Your task to perform on an android device: Show me the alarms in the clock app Image 0: 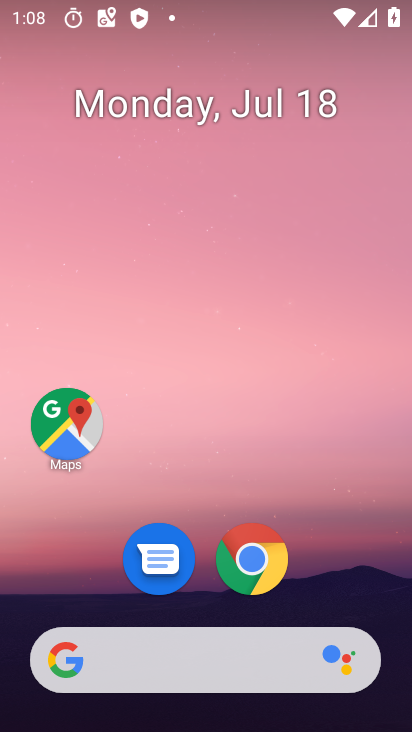
Step 0: drag from (83, 470) to (199, 14)
Your task to perform on an android device: Show me the alarms in the clock app Image 1: 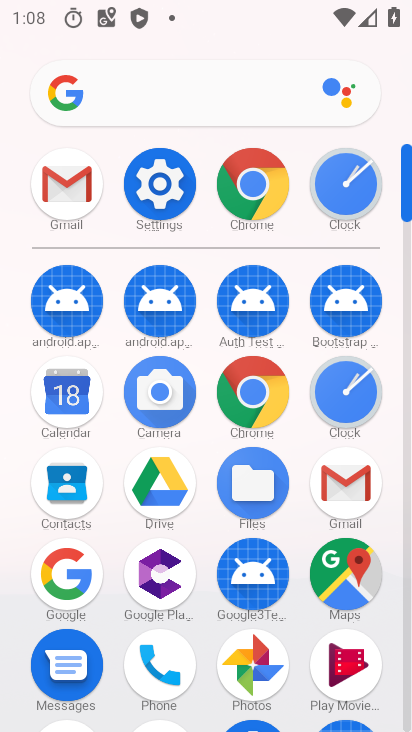
Step 1: click (356, 391)
Your task to perform on an android device: Show me the alarms in the clock app Image 2: 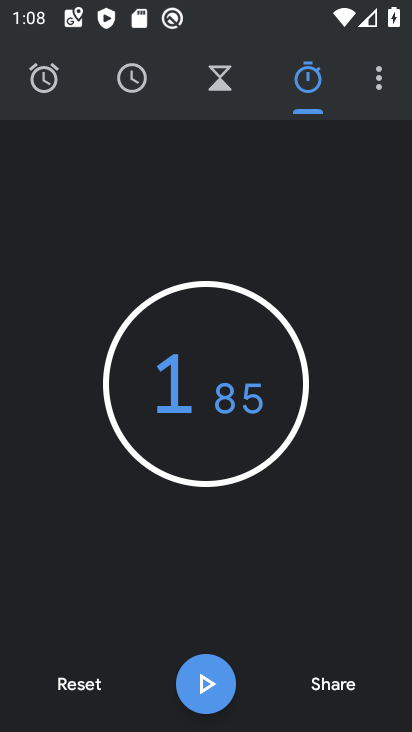
Step 2: click (47, 78)
Your task to perform on an android device: Show me the alarms in the clock app Image 3: 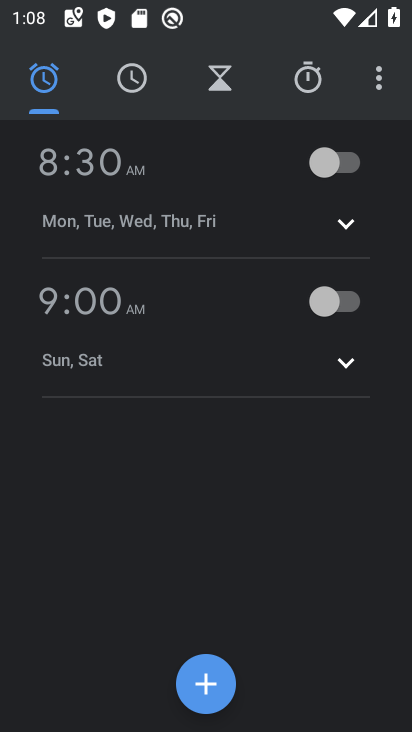
Step 3: task complete